Your task to perform on an android device: uninstall "ZOOM Cloud Meetings" Image 0: 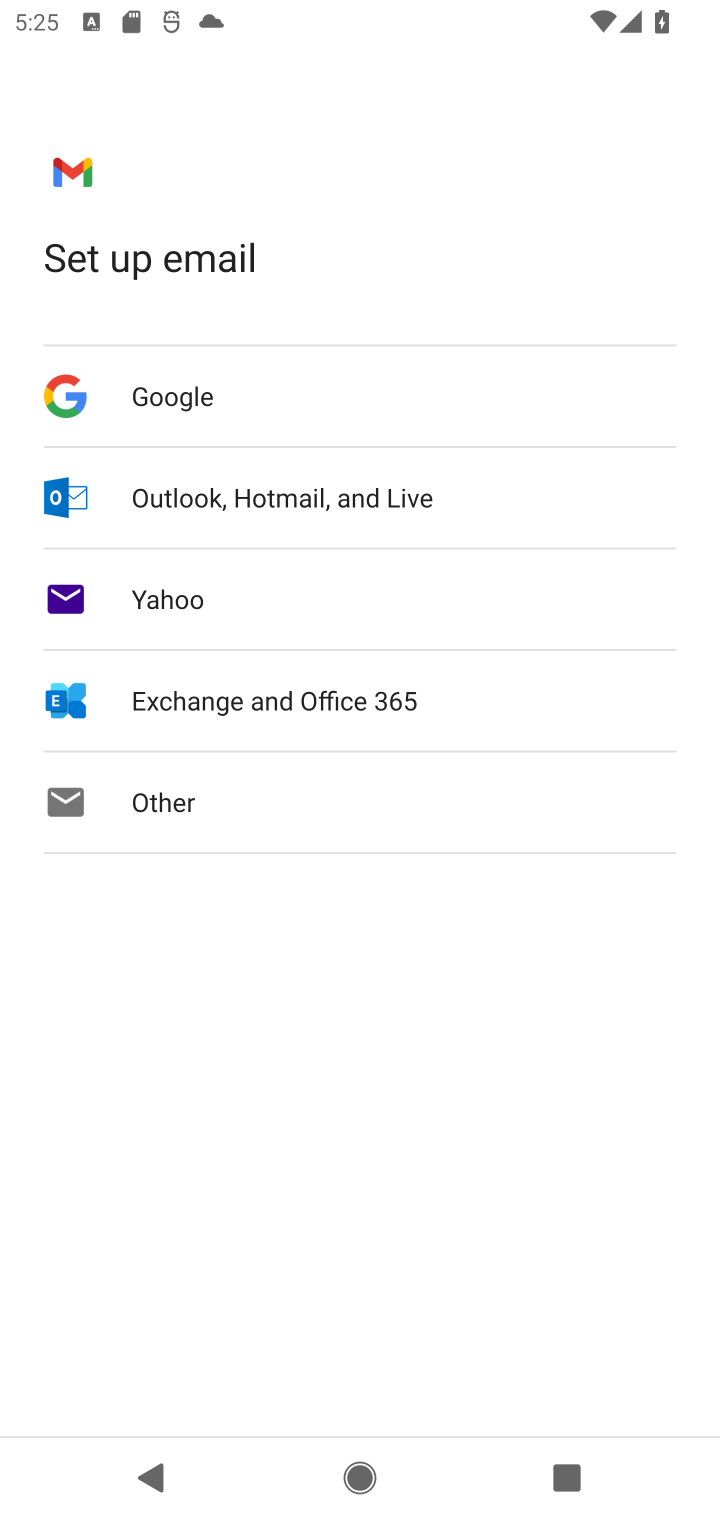
Step 0: press home button
Your task to perform on an android device: uninstall "ZOOM Cloud Meetings" Image 1: 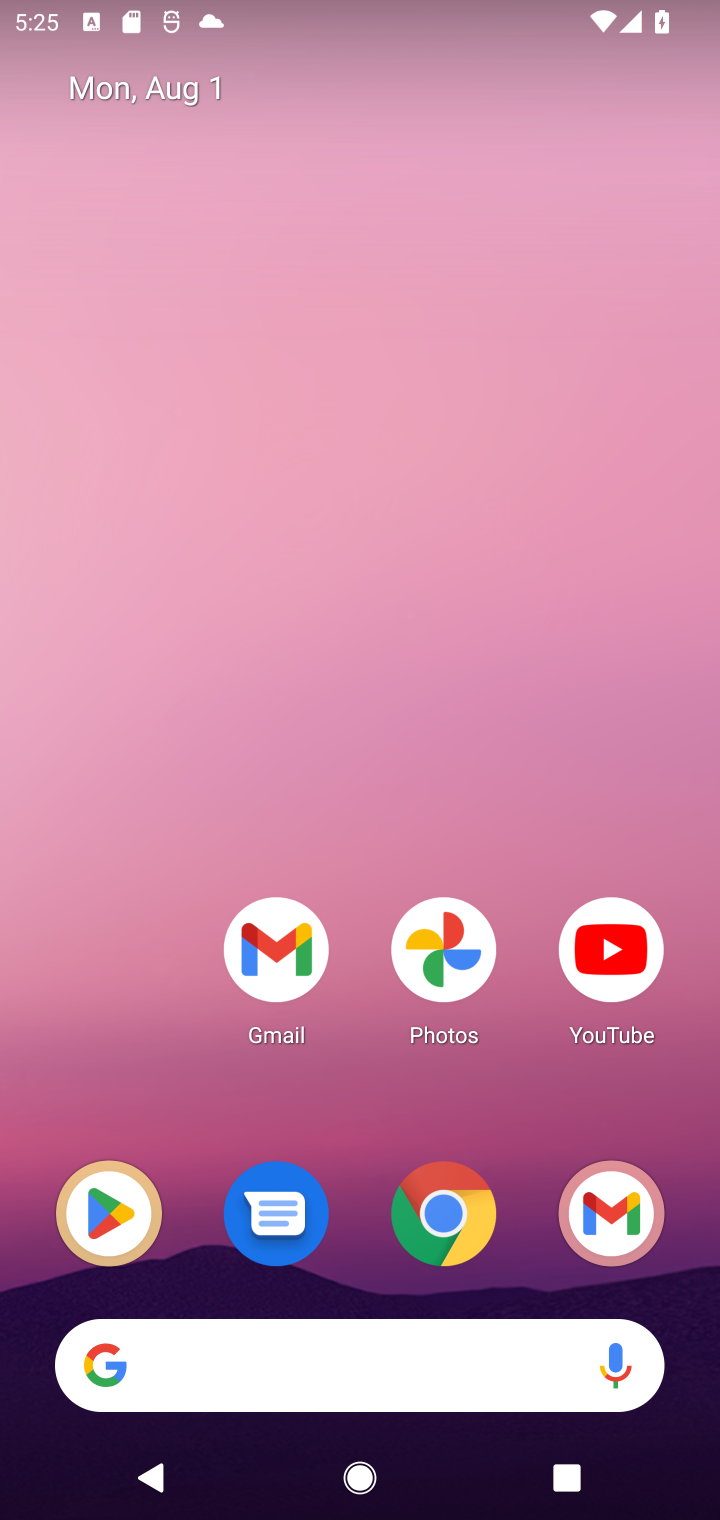
Step 1: drag from (541, 818) to (564, 82)
Your task to perform on an android device: uninstall "ZOOM Cloud Meetings" Image 2: 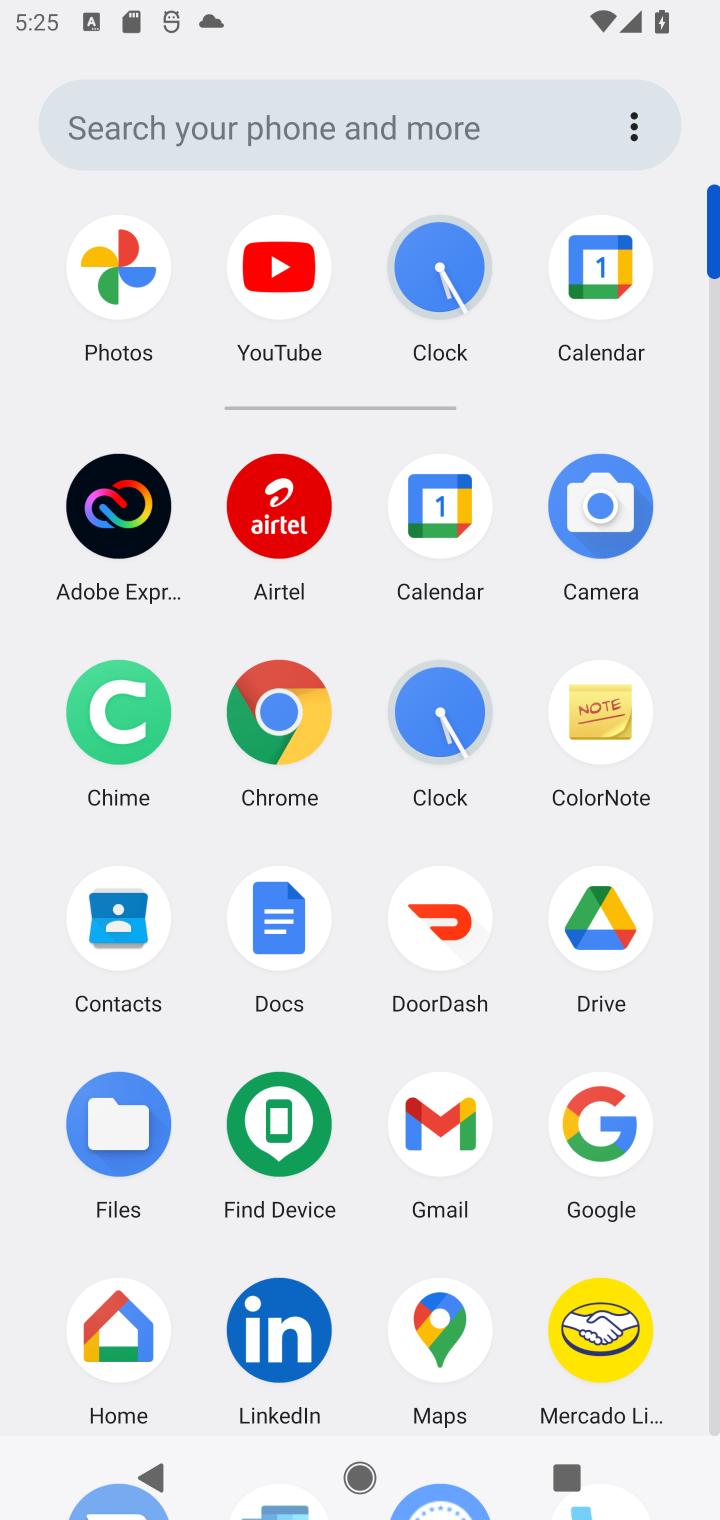
Step 2: drag from (368, 1282) to (430, 827)
Your task to perform on an android device: uninstall "ZOOM Cloud Meetings" Image 3: 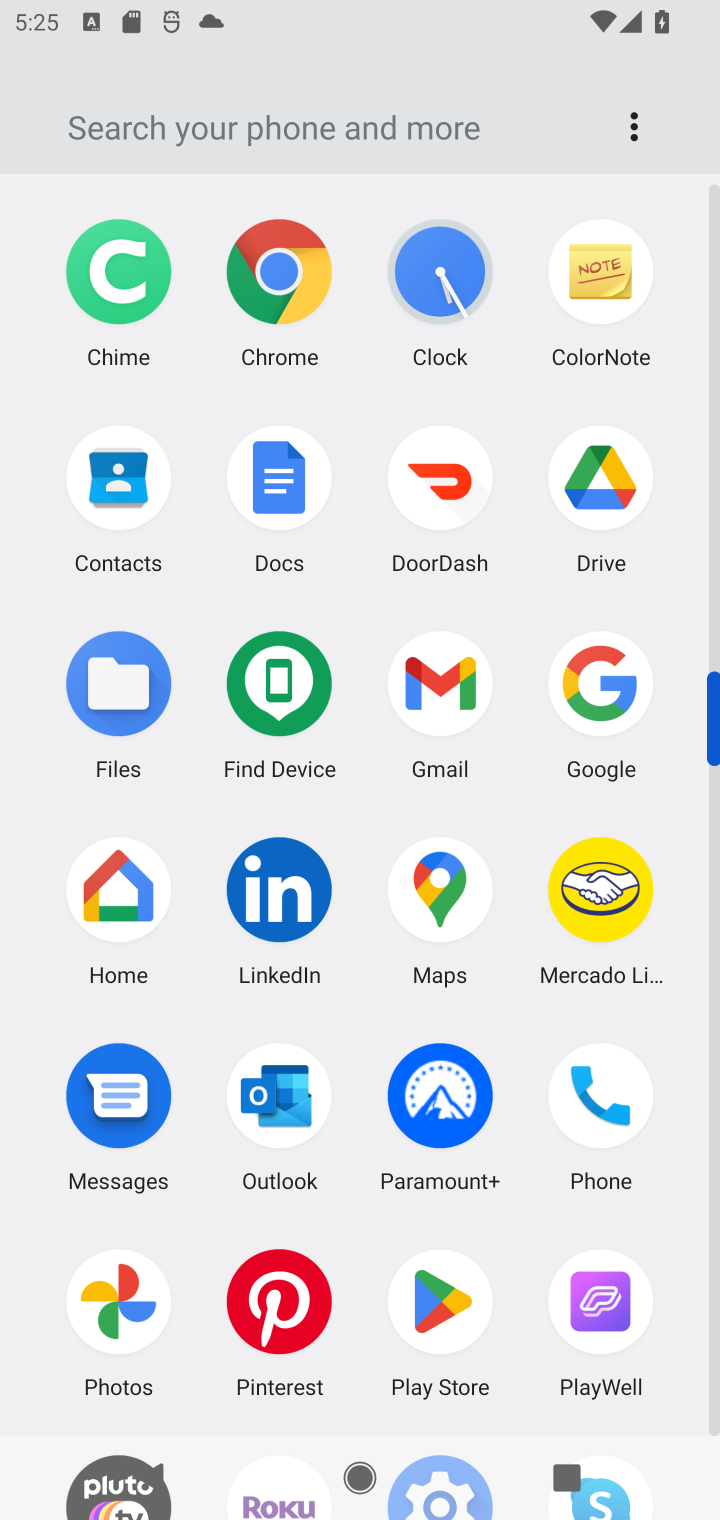
Step 3: click (452, 1263)
Your task to perform on an android device: uninstall "ZOOM Cloud Meetings" Image 4: 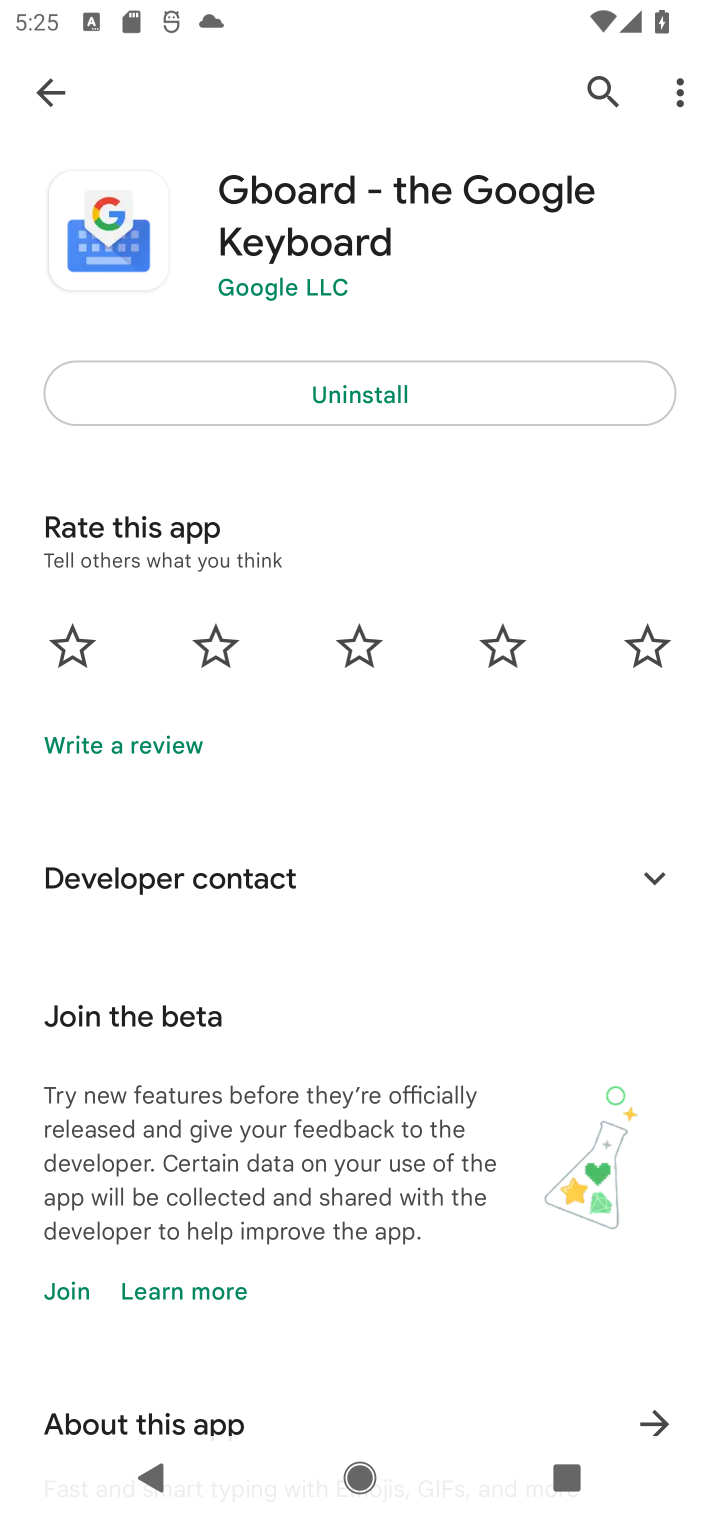
Step 4: click (599, 117)
Your task to perform on an android device: uninstall "ZOOM Cloud Meetings" Image 5: 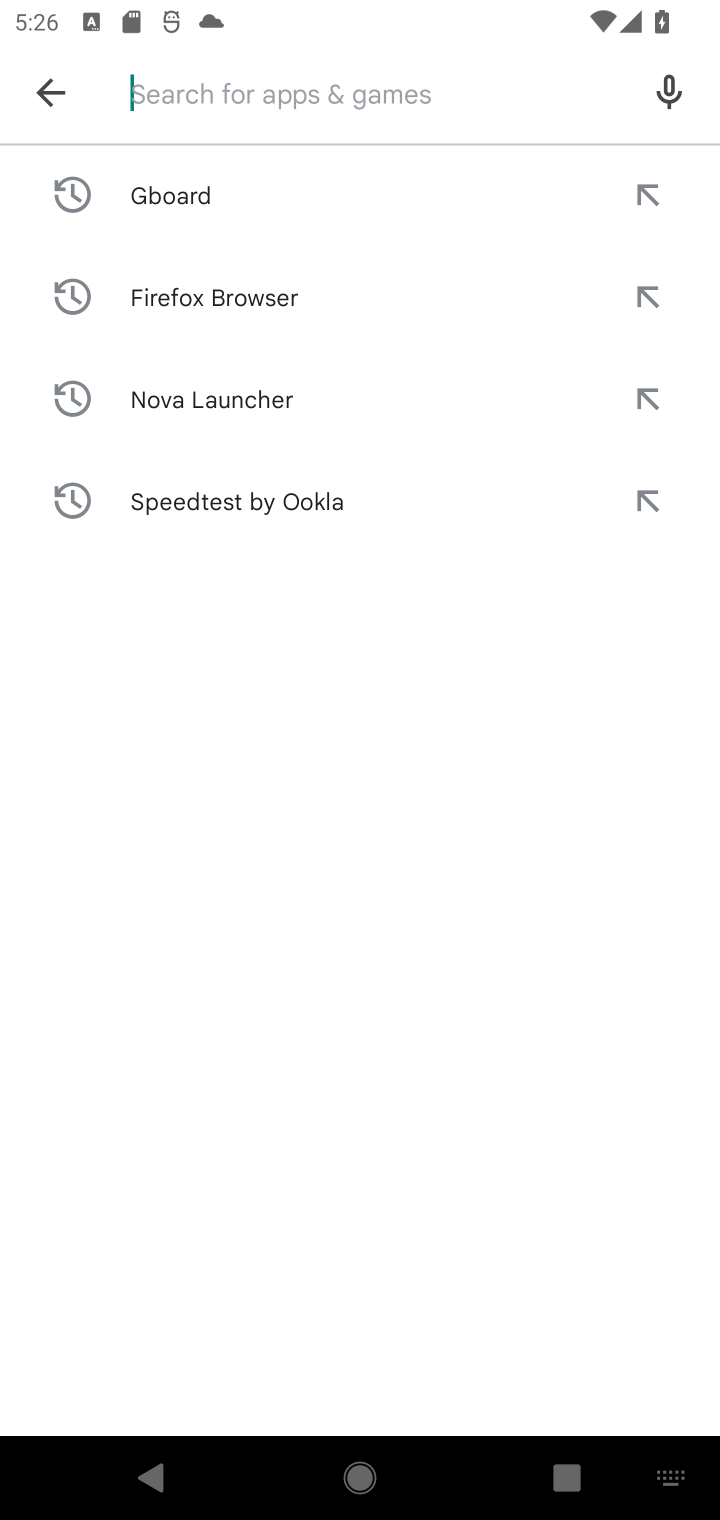
Step 5: type "ZOOM Cloud Meeting"
Your task to perform on an android device: uninstall "ZOOM Cloud Meetings" Image 6: 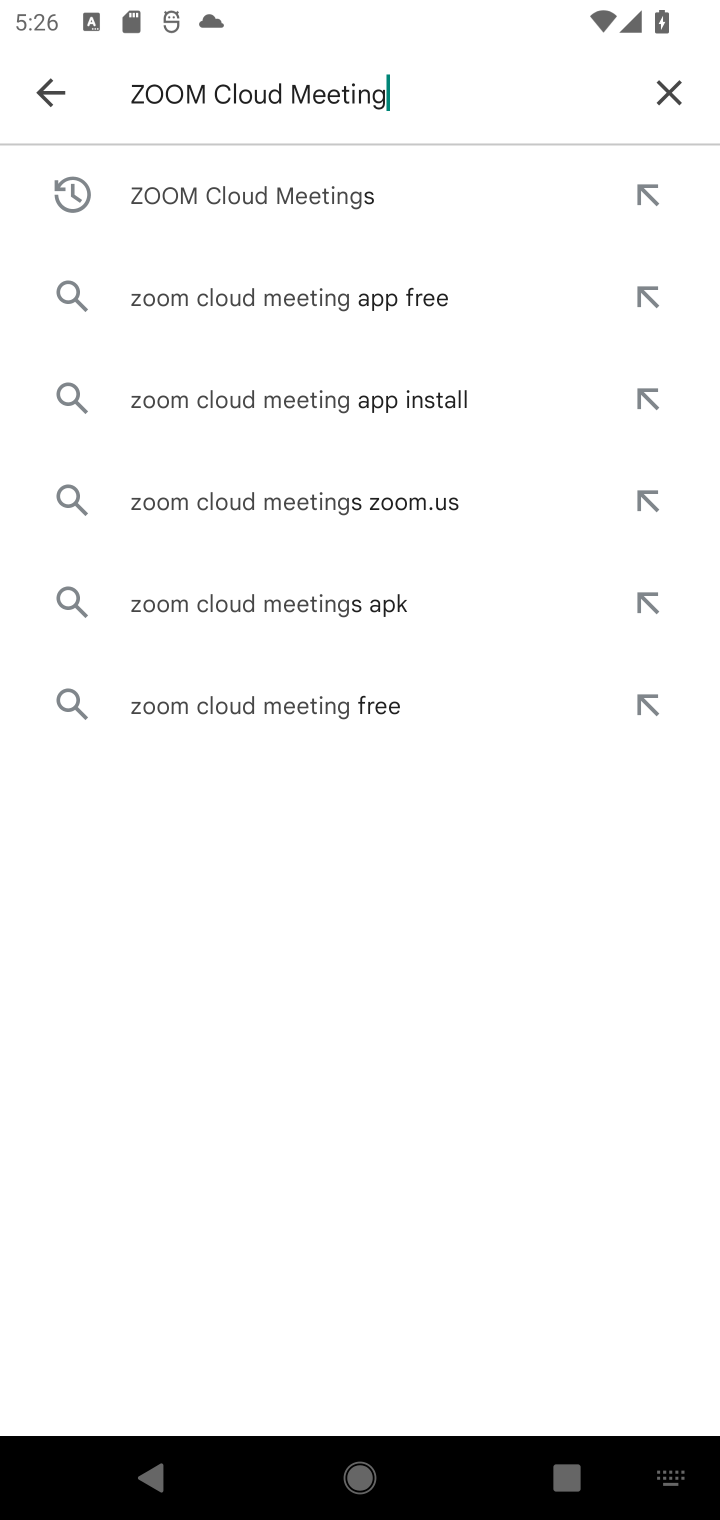
Step 6: press enter
Your task to perform on an android device: uninstall "ZOOM Cloud Meetings" Image 7: 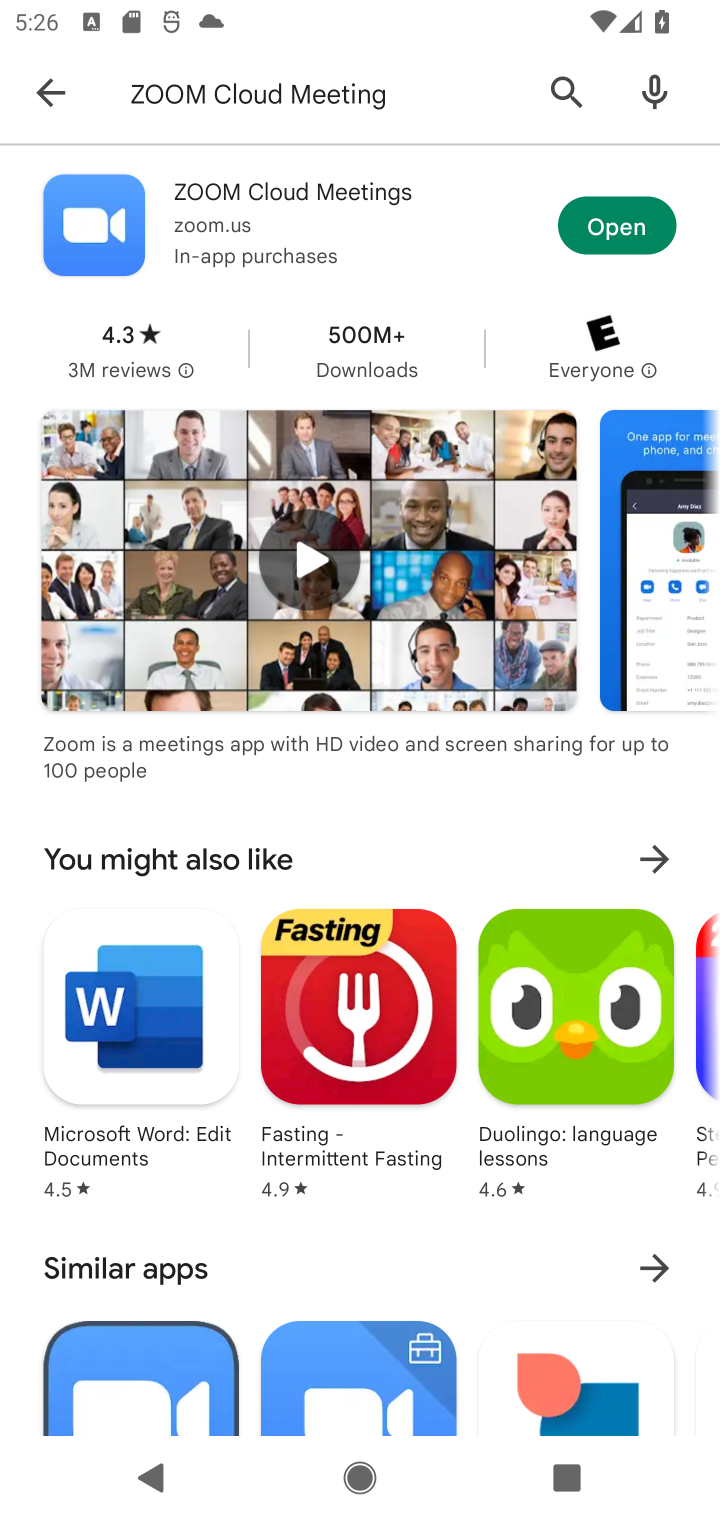
Step 7: task complete